Your task to perform on an android device: snooze an email in the gmail app Image 0: 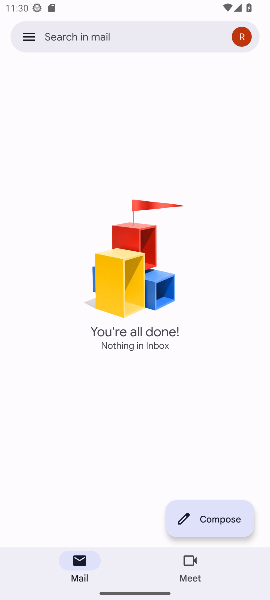
Step 0: press back button
Your task to perform on an android device: snooze an email in the gmail app Image 1: 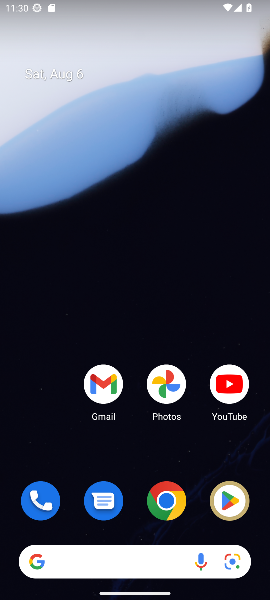
Step 1: click (111, 387)
Your task to perform on an android device: snooze an email in the gmail app Image 2: 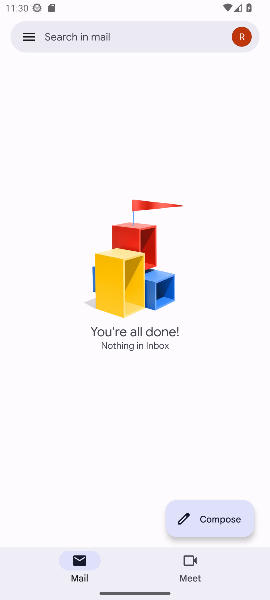
Step 2: click (26, 36)
Your task to perform on an android device: snooze an email in the gmail app Image 3: 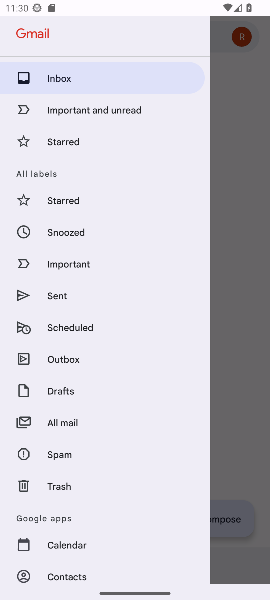
Step 3: click (51, 422)
Your task to perform on an android device: snooze an email in the gmail app Image 4: 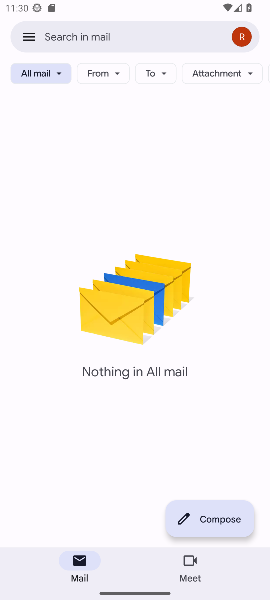
Step 4: task complete